Your task to perform on an android device: Is it going to rain this weekend? Image 0: 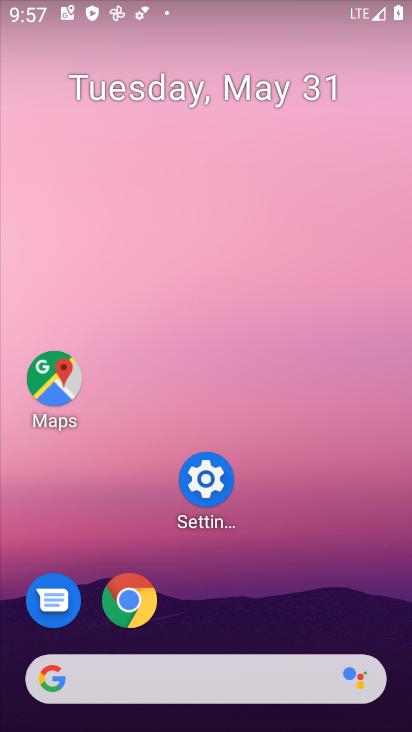
Step 0: press home button
Your task to perform on an android device: Is it going to rain this weekend? Image 1: 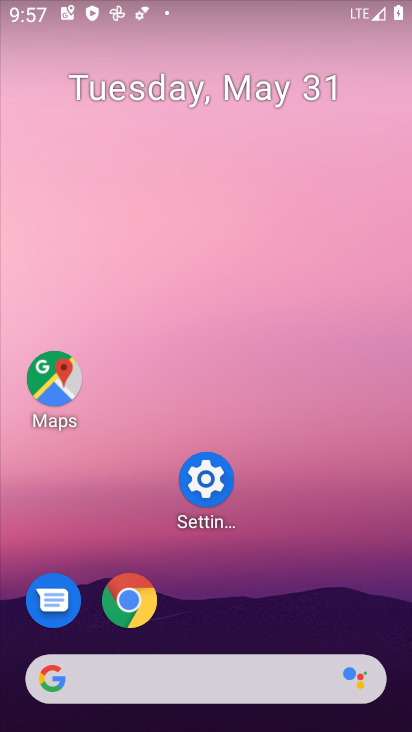
Step 1: click (169, 679)
Your task to perform on an android device: Is it going to rain this weekend? Image 2: 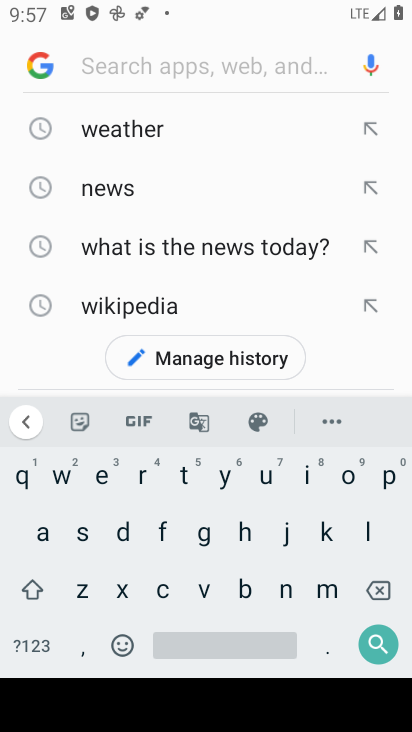
Step 2: click (124, 132)
Your task to perform on an android device: Is it going to rain this weekend? Image 3: 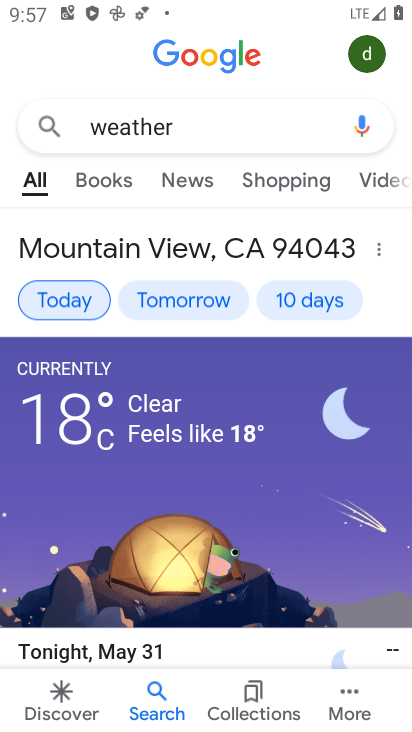
Step 3: click (284, 305)
Your task to perform on an android device: Is it going to rain this weekend? Image 4: 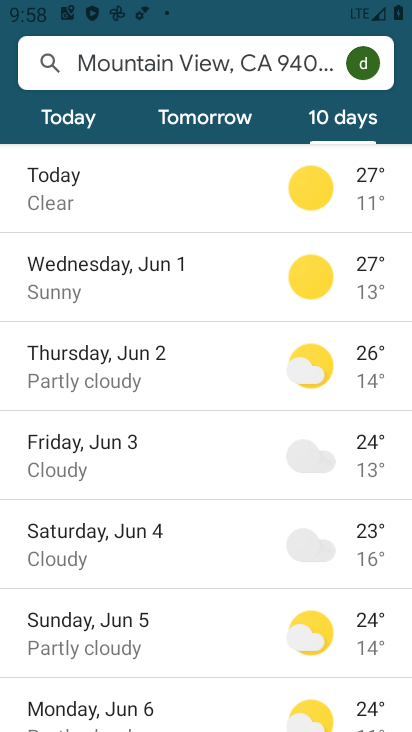
Step 4: task complete